Your task to perform on an android device: Open Chrome and go to the settings page Image 0: 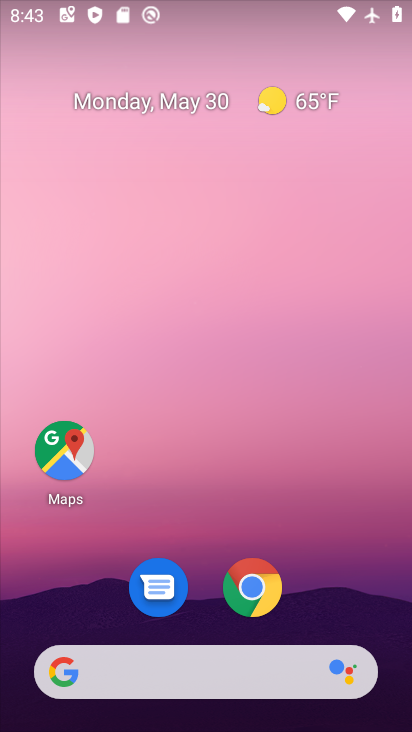
Step 0: click (258, 601)
Your task to perform on an android device: Open Chrome and go to the settings page Image 1: 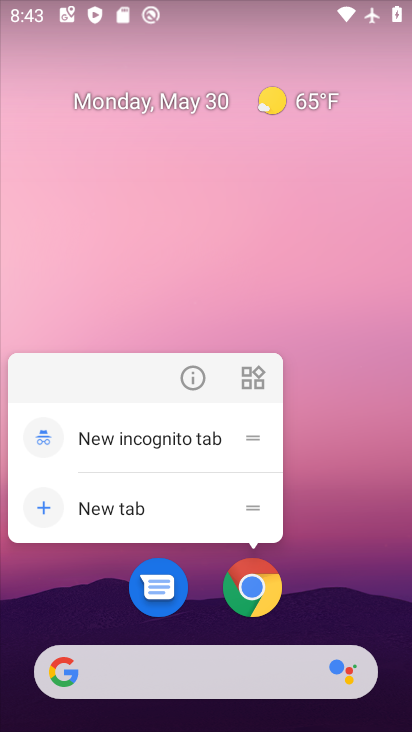
Step 1: click (257, 589)
Your task to perform on an android device: Open Chrome and go to the settings page Image 2: 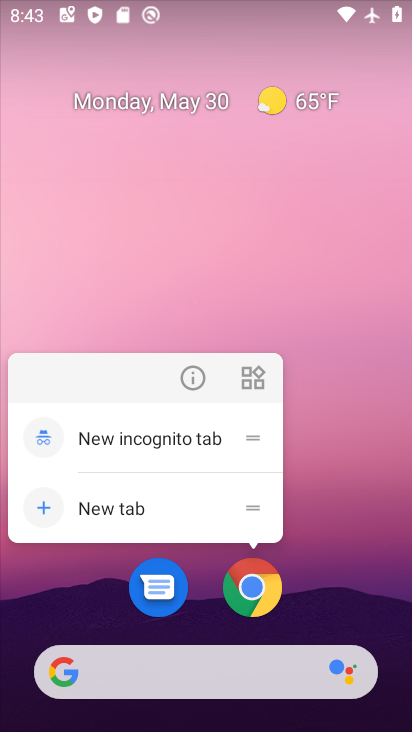
Step 2: click (248, 594)
Your task to perform on an android device: Open Chrome and go to the settings page Image 3: 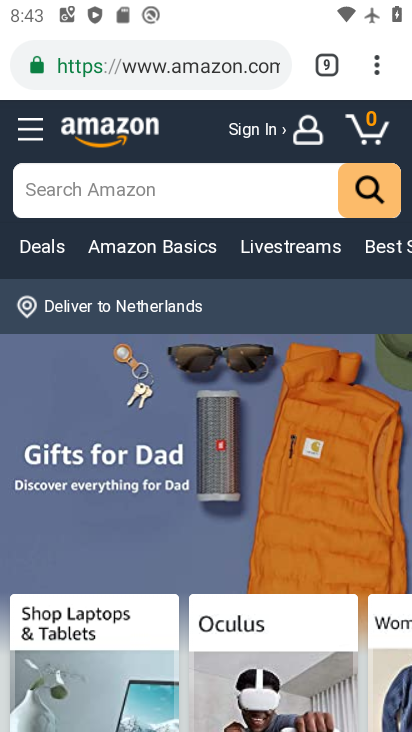
Step 3: task complete